Your task to perform on an android device: Open calendar and show me the third week of next month Image 0: 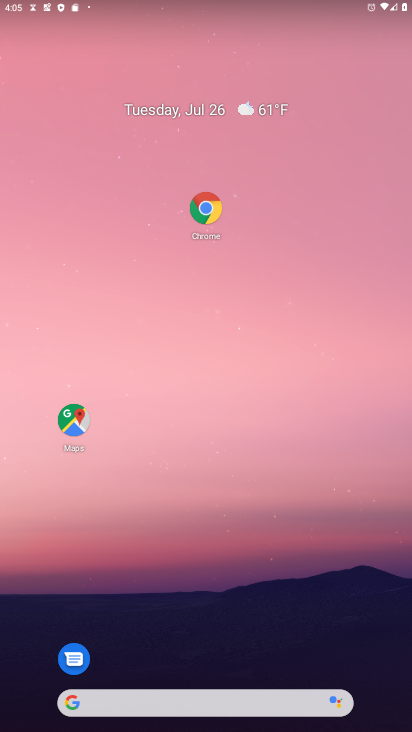
Step 0: drag from (143, 625) to (219, 47)
Your task to perform on an android device: Open calendar and show me the third week of next month Image 1: 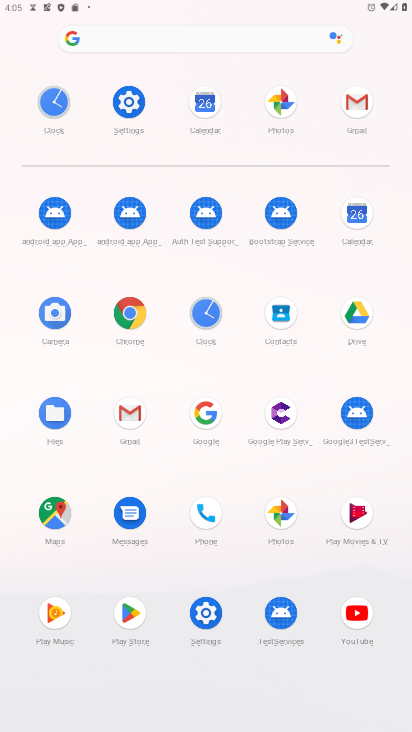
Step 1: click (217, 109)
Your task to perform on an android device: Open calendar and show me the third week of next month Image 2: 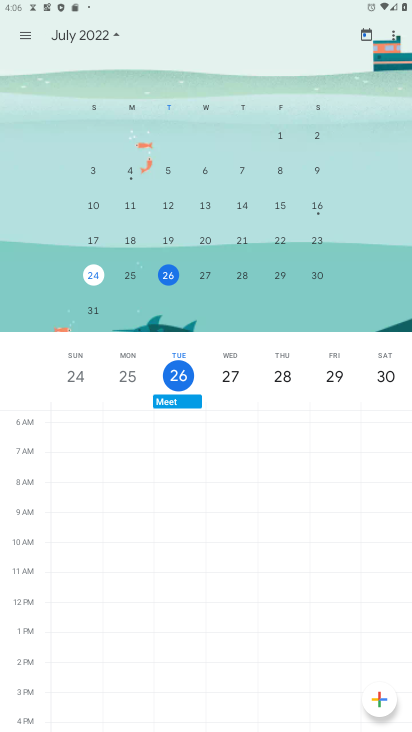
Step 2: drag from (261, 176) to (6, 138)
Your task to perform on an android device: Open calendar and show me the third week of next month Image 3: 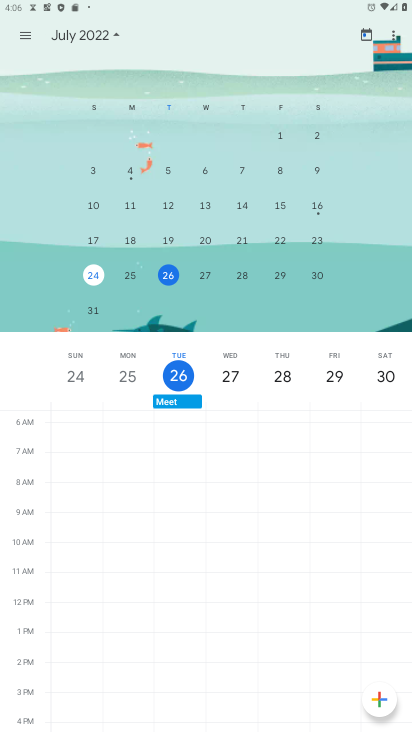
Step 3: drag from (22, 157) to (52, 114)
Your task to perform on an android device: Open calendar and show me the third week of next month Image 4: 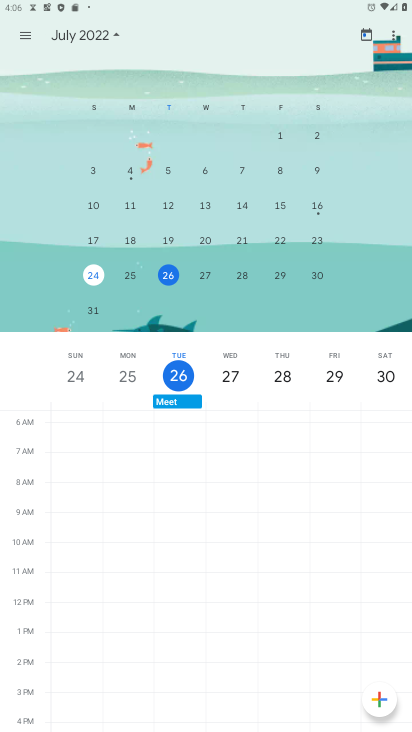
Step 4: drag from (142, 153) to (14, 123)
Your task to perform on an android device: Open calendar and show me the third week of next month Image 5: 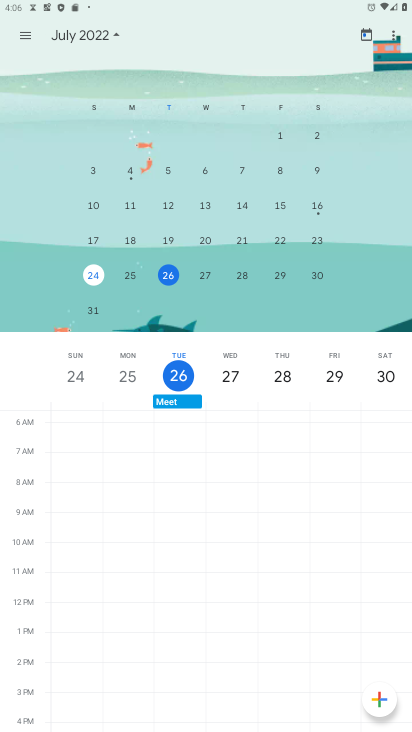
Step 5: drag from (161, 195) to (92, 133)
Your task to perform on an android device: Open calendar and show me the third week of next month Image 6: 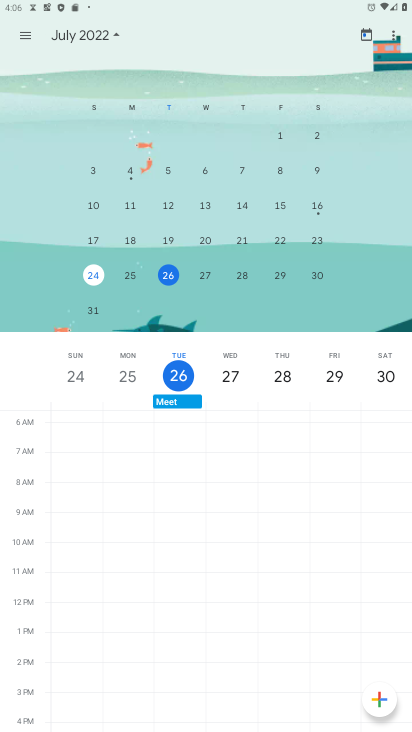
Step 6: drag from (250, 201) to (45, 174)
Your task to perform on an android device: Open calendar and show me the third week of next month Image 7: 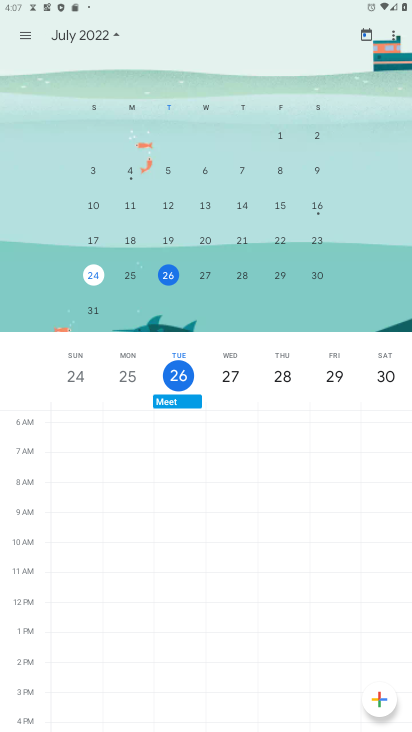
Step 7: drag from (143, 201) to (7, 195)
Your task to perform on an android device: Open calendar and show me the third week of next month Image 8: 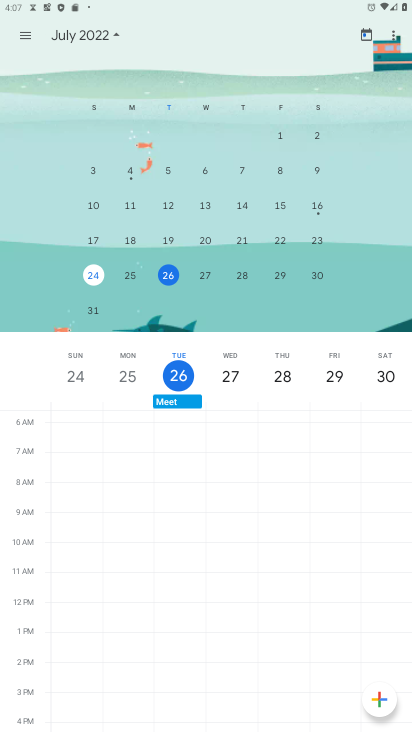
Step 8: drag from (255, 201) to (44, 212)
Your task to perform on an android device: Open calendar and show me the third week of next month Image 9: 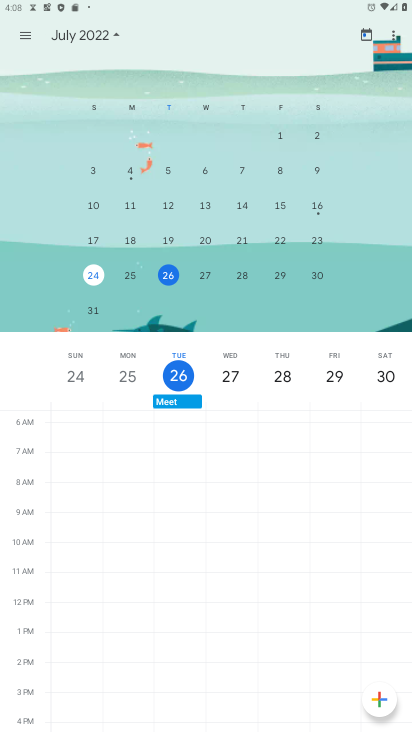
Step 9: drag from (234, 230) to (3, 227)
Your task to perform on an android device: Open calendar and show me the third week of next month Image 10: 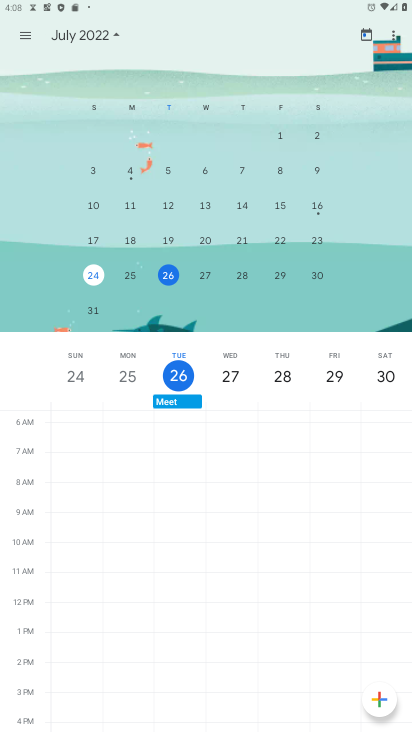
Step 10: drag from (290, 212) to (16, 201)
Your task to perform on an android device: Open calendar and show me the third week of next month Image 11: 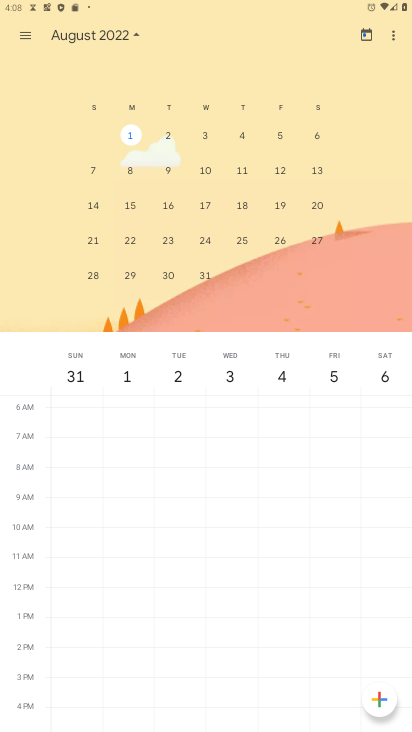
Step 11: click (92, 210)
Your task to perform on an android device: Open calendar and show me the third week of next month Image 12: 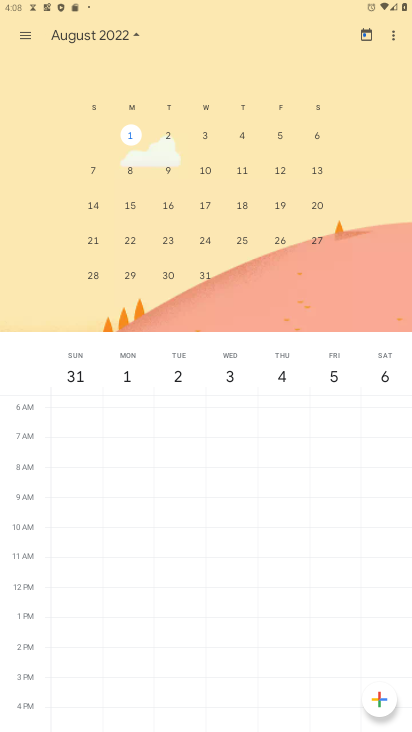
Step 12: click (92, 210)
Your task to perform on an android device: Open calendar and show me the third week of next month Image 13: 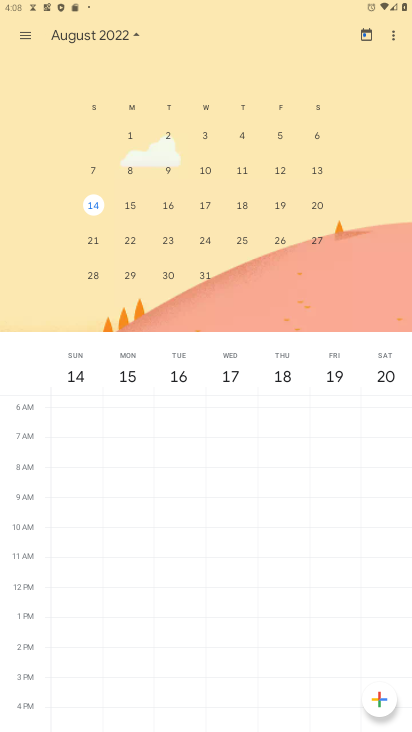
Step 13: task complete